Your task to perform on an android device: Open Google Maps Image 0: 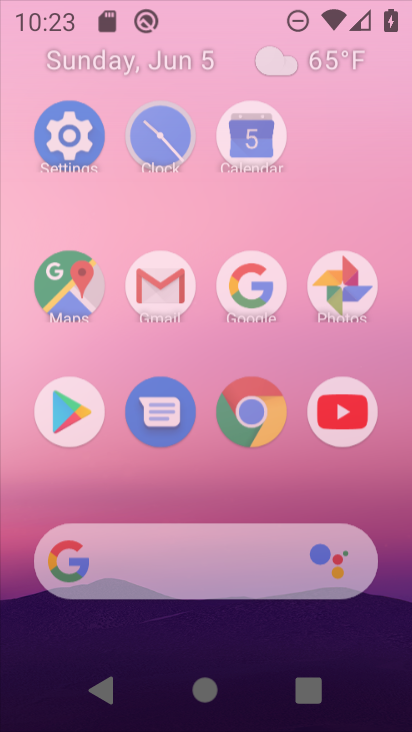
Step 0: press home button
Your task to perform on an android device: Open Google Maps Image 1: 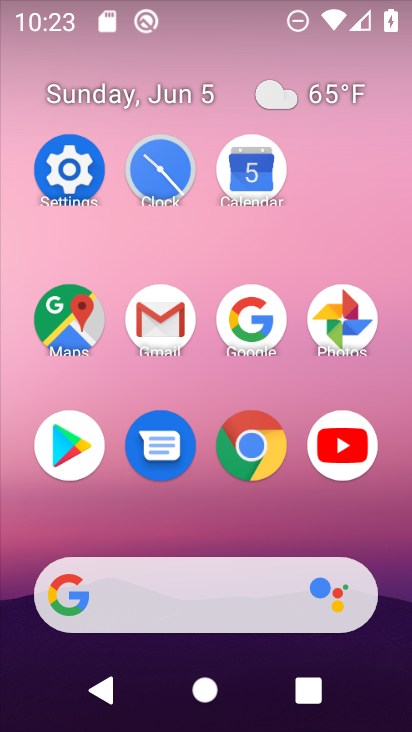
Step 1: click (73, 307)
Your task to perform on an android device: Open Google Maps Image 2: 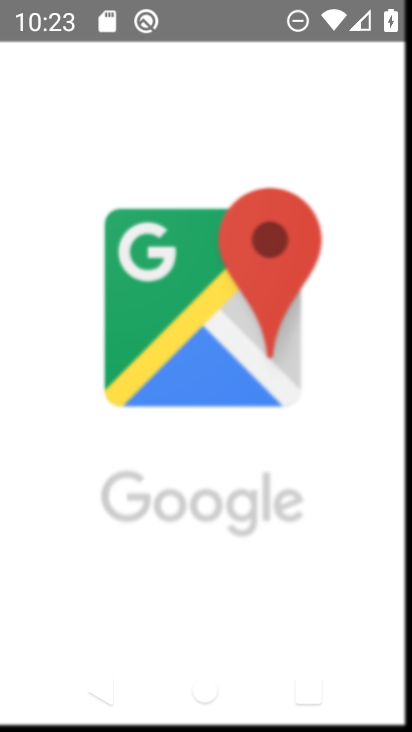
Step 2: task complete